Your task to perform on an android device: set an alarm Image 0: 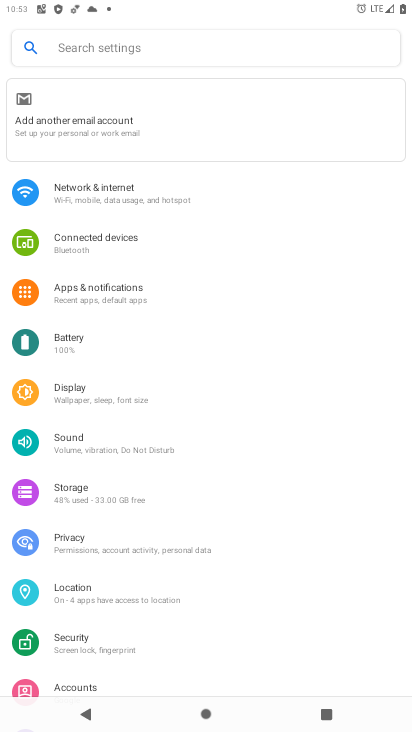
Step 0: press home button
Your task to perform on an android device: set an alarm Image 1: 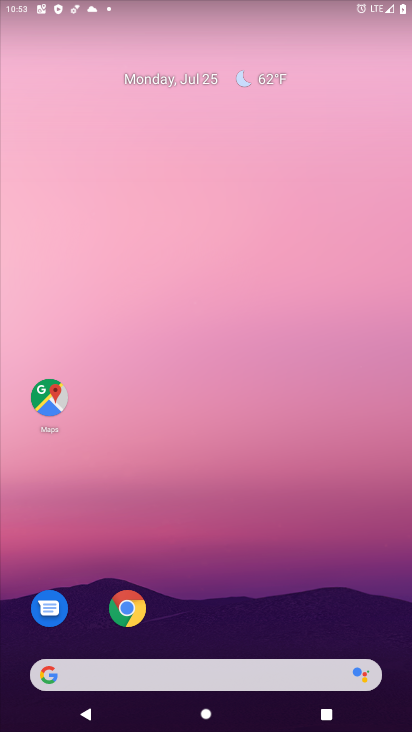
Step 1: drag from (264, 622) to (273, 220)
Your task to perform on an android device: set an alarm Image 2: 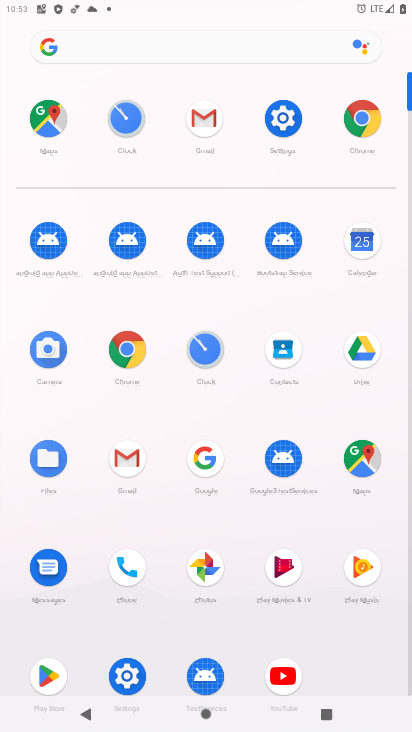
Step 2: click (205, 356)
Your task to perform on an android device: set an alarm Image 3: 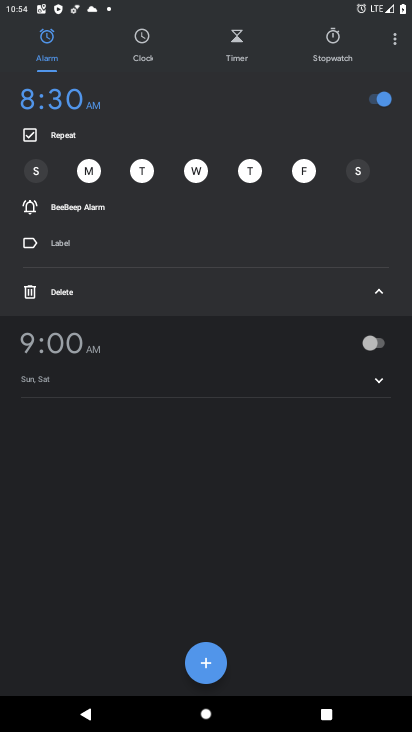
Step 3: click (390, 348)
Your task to perform on an android device: set an alarm Image 4: 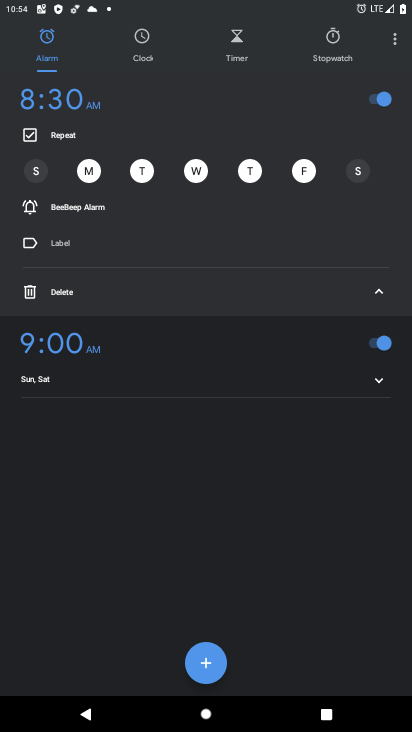
Step 4: click (380, 381)
Your task to perform on an android device: set an alarm Image 5: 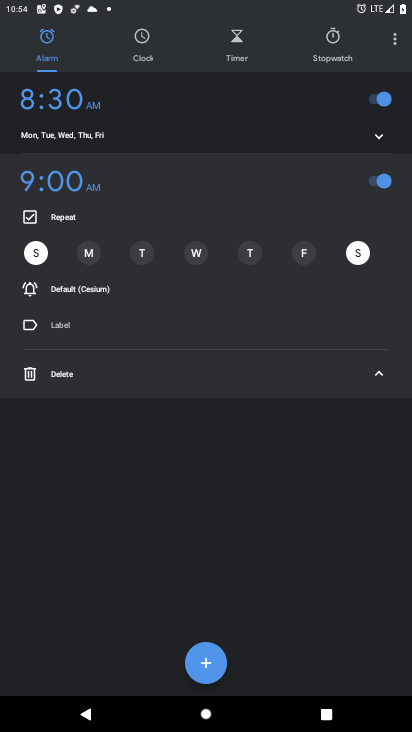
Step 5: click (65, 291)
Your task to perform on an android device: set an alarm Image 6: 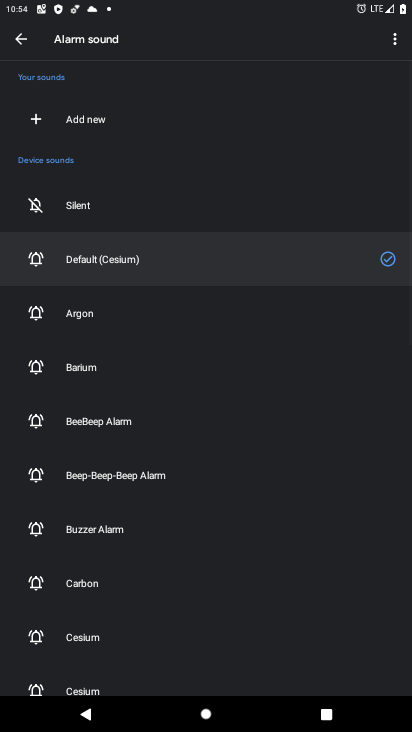
Step 6: click (89, 319)
Your task to perform on an android device: set an alarm Image 7: 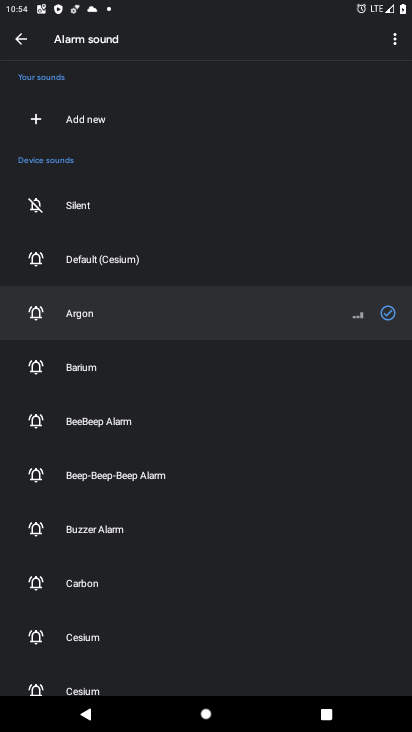
Step 7: task complete